Your task to perform on an android device: turn off location history Image 0: 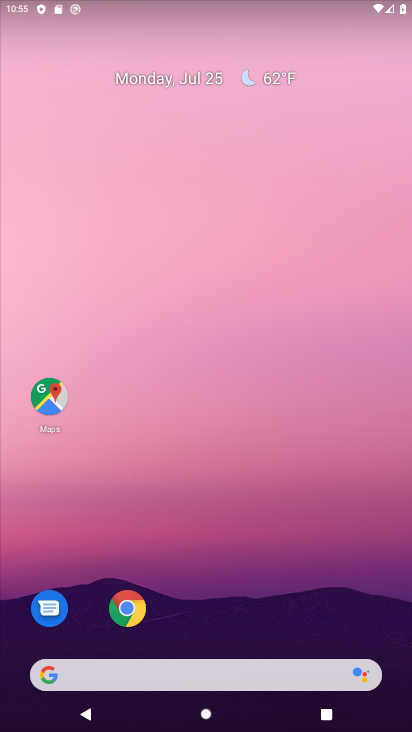
Step 0: drag from (217, 664) to (214, 143)
Your task to perform on an android device: turn off location history Image 1: 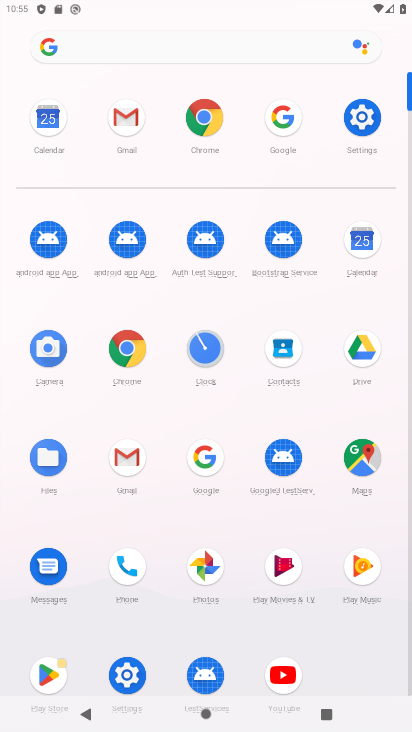
Step 1: click (360, 116)
Your task to perform on an android device: turn off location history Image 2: 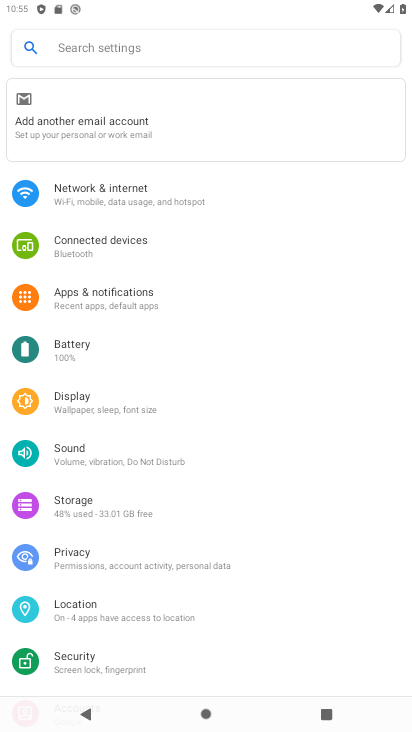
Step 2: click (116, 610)
Your task to perform on an android device: turn off location history Image 3: 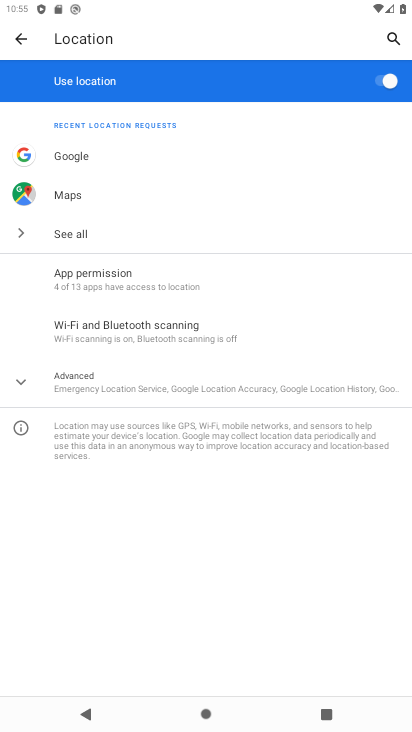
Step 3: click (107, 381)
Your task to perform on an android device: turn off location history Image 4: 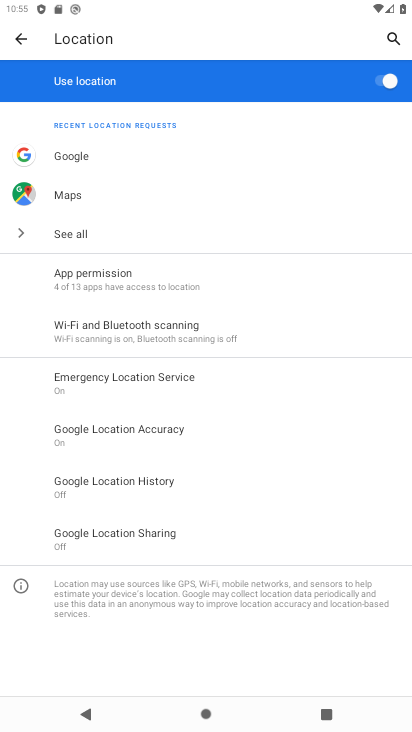
Step 4: click (133, 487)
Your task to perform on an android device: turn off location history Image 5: 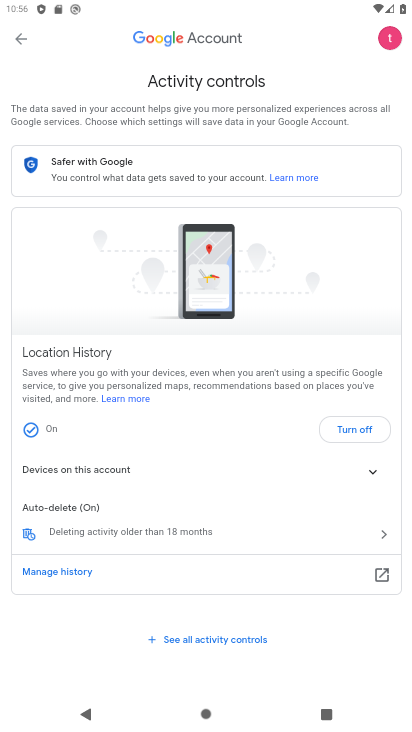
Step 5: click (343, 426)
Your task to perform on an android device: turn off location history Image 6: 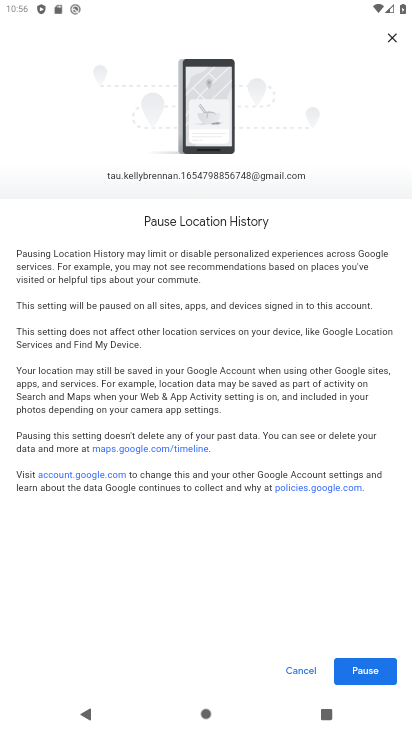
Step 6: click (371, 654)
Your task to perform on an android device: turn off location history Image 7: 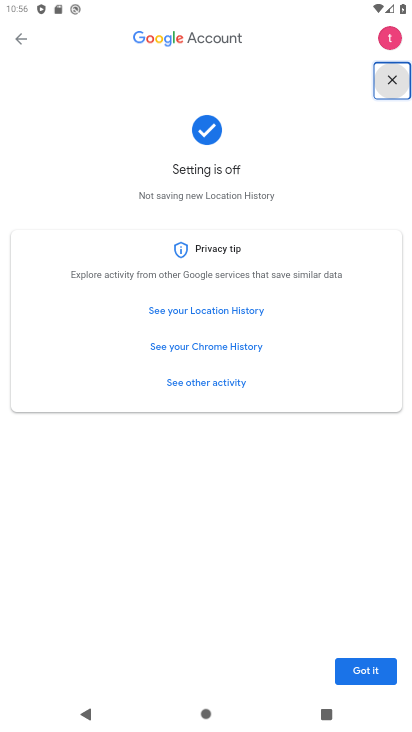
Step 7: click (375, 669)
Your task to perform on an android device: turn off location history Image 8: 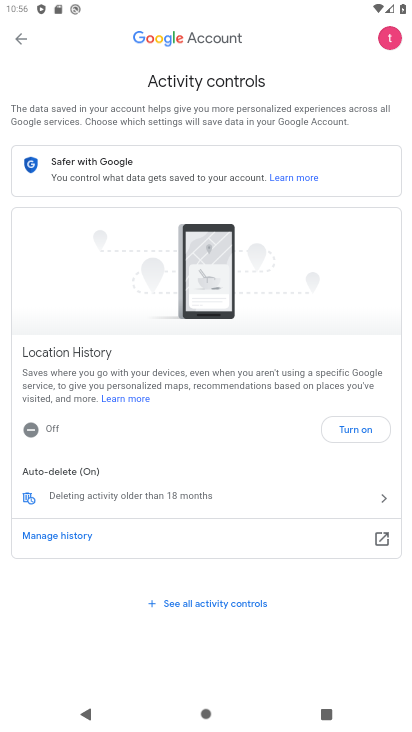
Step 8: task complete